Your task to perform on an android device: change the clock display to show seconds Image 0: 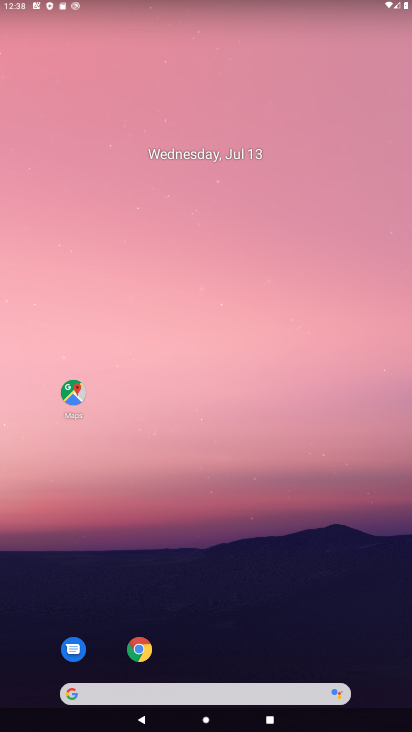
Step 0: drag from (202, 659) to (238, 174)
Your task to perform on an android device: change the clock display to show seconds Image 1: 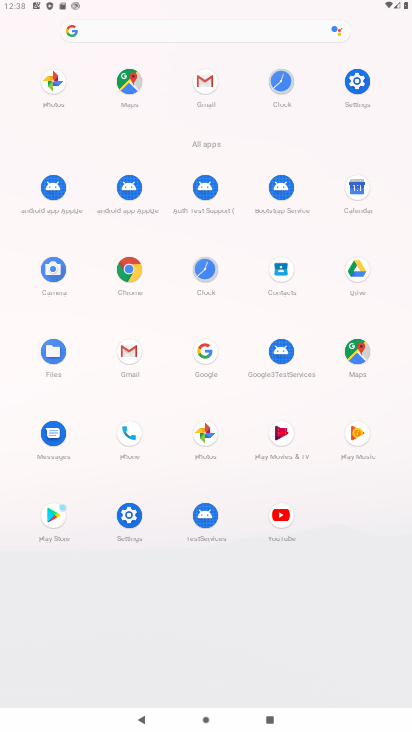
Step 1: click (209, 270)
Your task to perform on an android device: change the clock display to show seconds Image 2: 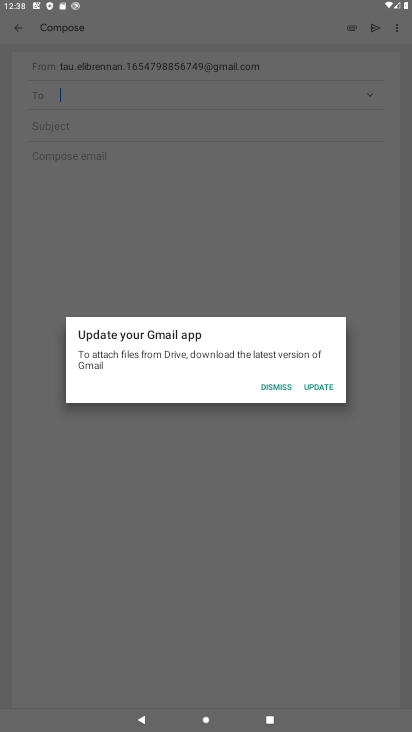
Step 2: press back button
Your task to perform on an android device: change the clock display to show seconds Image 3: 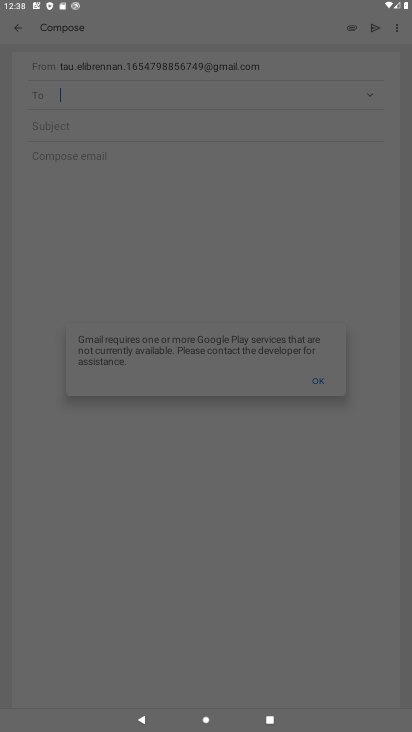
Step 3: press home button
Your task to perform on an android device: change the clock display to show seconds Image 4: 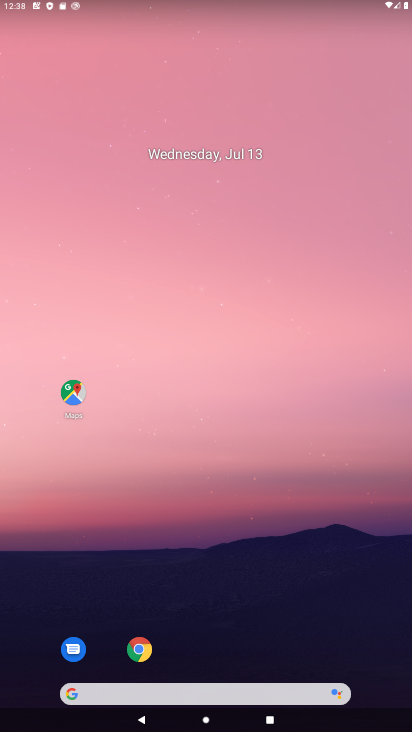
Step 4: drag from (223, 673) to (290, 167)
Your task to perform on an android device: change the clock display to show seconds Image 5: 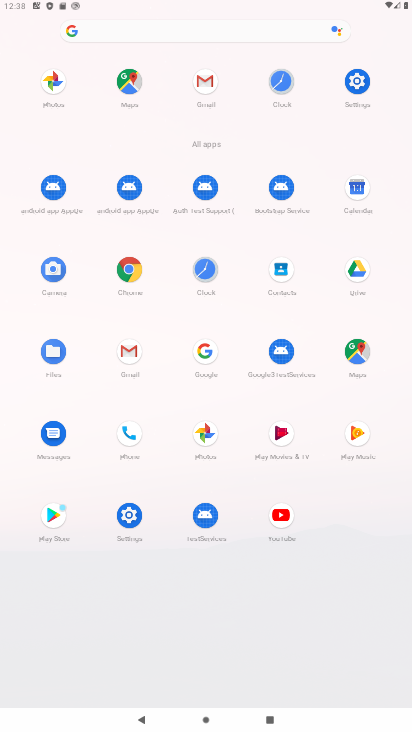
Step 5: click (203, 281)
Your task to perform on an android device: change the clock display to show seconds Image 6: 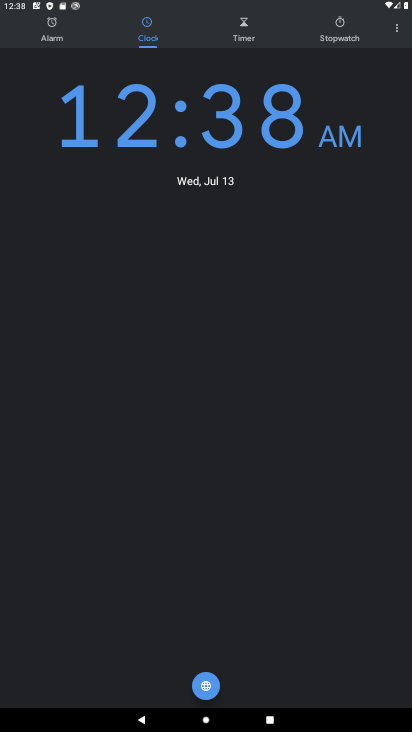
Step 6: click (391, 29)
Your task to perform on an android device: change the clock display to show seconds Image 7: 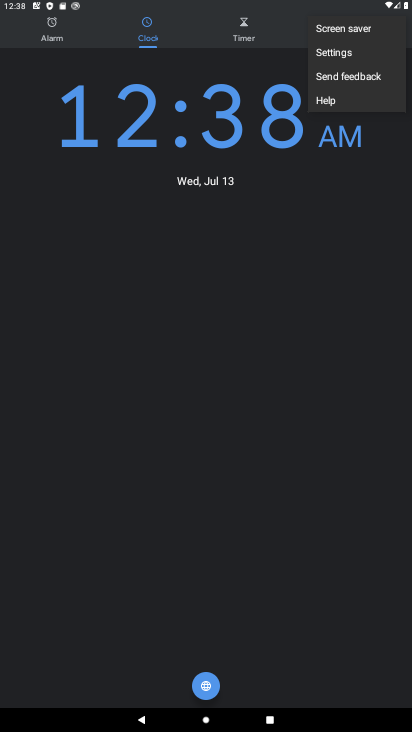
Step 7: click (383, 49)
Your task to perform on an android device: change the clock display to show seconds Image 8: 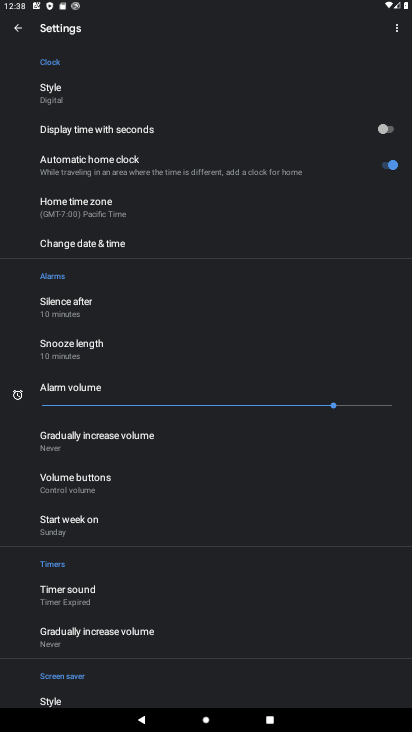
Step 8: click (394, 131)
Your task to perform on an android device: change the clock display to show seconds Image 9: 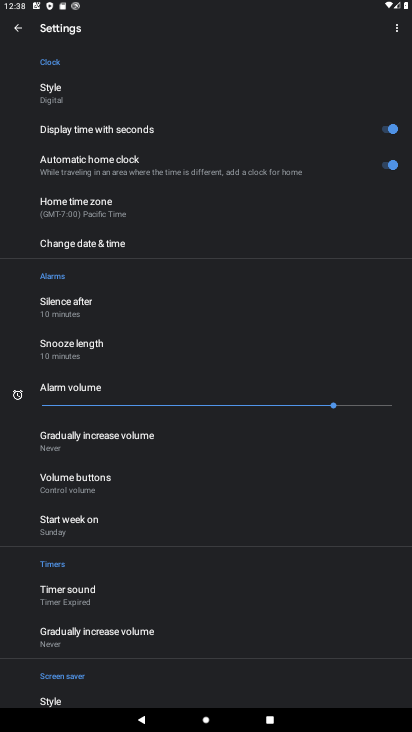
Step 9: task complete